Your task to perform on an android device: turn notification dots on Image 0: 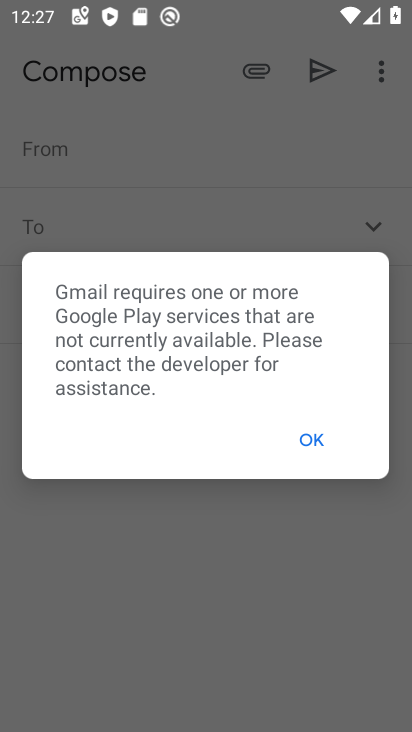
Step 0: drag from (257, 476) to (217, 231)
Your task to perform on an android device: turn notification dots on Image 1: 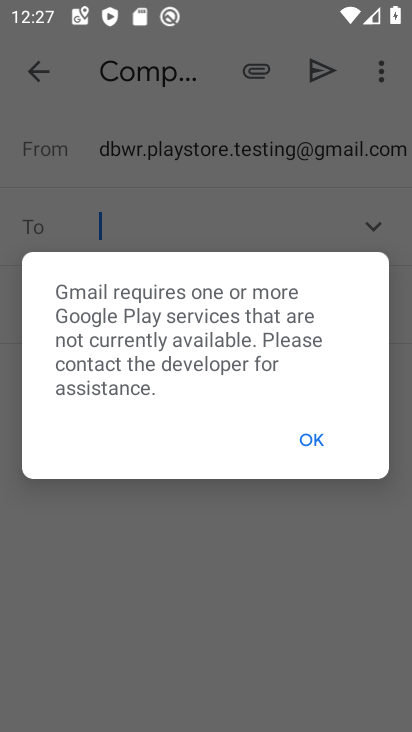
Step 1: press home button
Your task to perform on an android device: turn notification dots on Image 2: 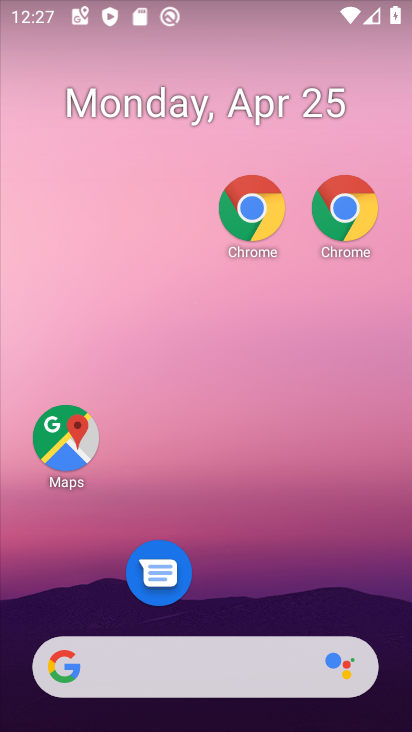
Step 2: drag from (273, 683) to (174, 101)
Your task to perform on an android device: turn notification dots on Image 3: 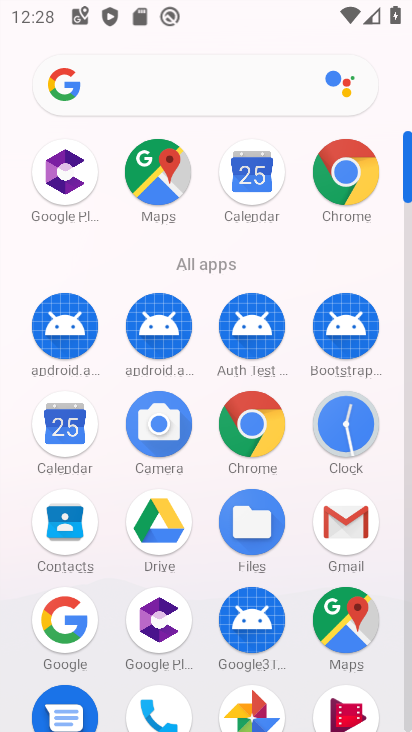
Step 3: drag from (295, 616) to (3, 93)
Your task to perform on an android device: turn notification dots on Image 4: 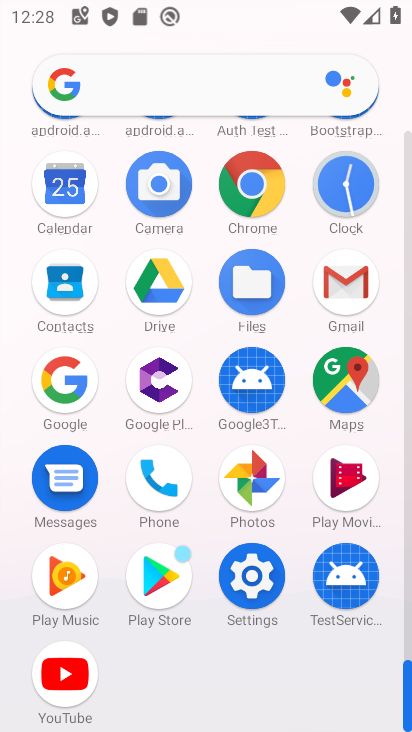
Step 4: click (254, 586)
Your task to perform on an android device: turn notification dots on Image 5: 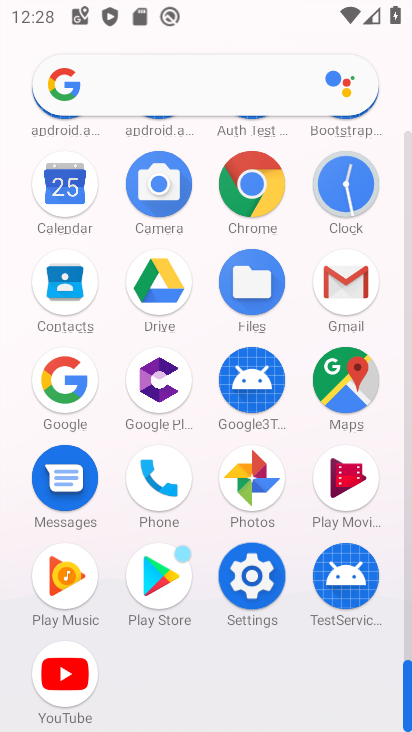
Step 5: drag from (255, 585) to (231, 551)
Your task to perform on an android device: turn notification dots on Image 6: 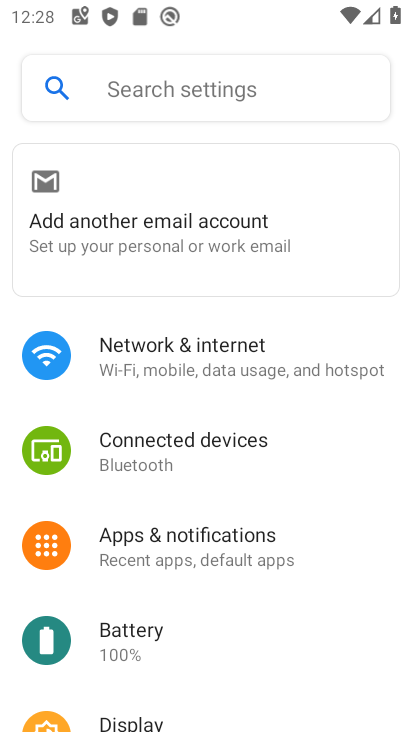
Step 6: click (164, 537)
Your task to perform on an android device: turn notification dots on Image 7: 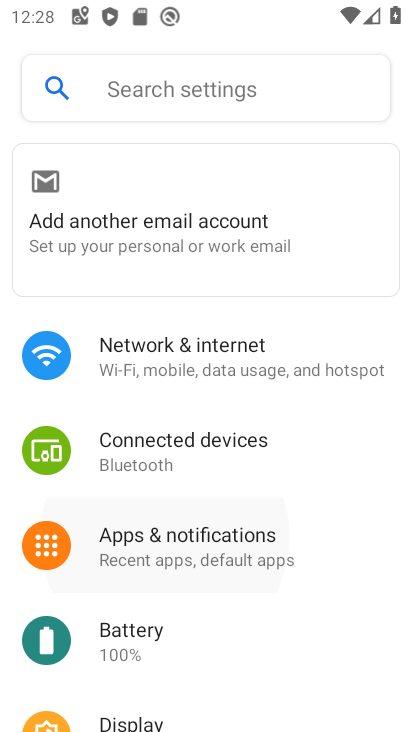
Step 7: click (164, 537)
Your task to perform on an android device: turn notification dots on Image 8: 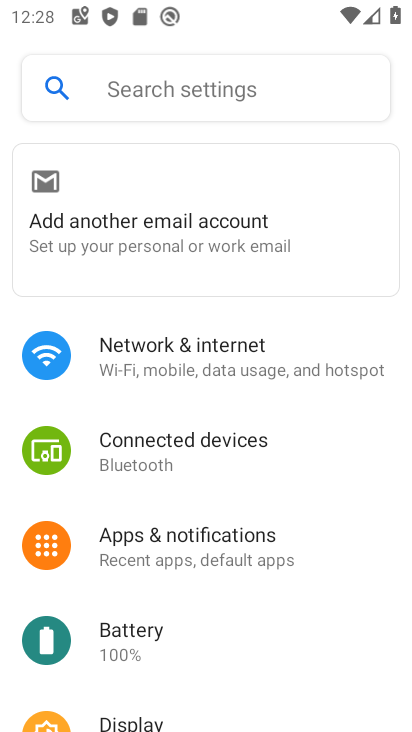
Step 8: click (164, 537)
Your task to perform on an android device: turn notification dots on Image 9: 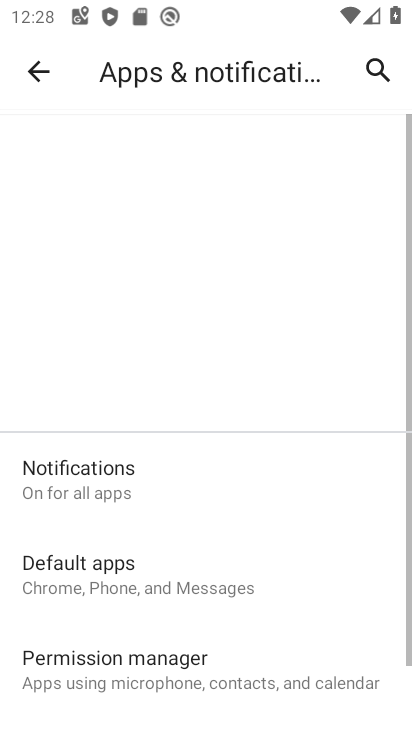
Step 9: drag from (147, 546) to (72, 124)
Your task to perform on an android device: turn notification dots on Image 10: 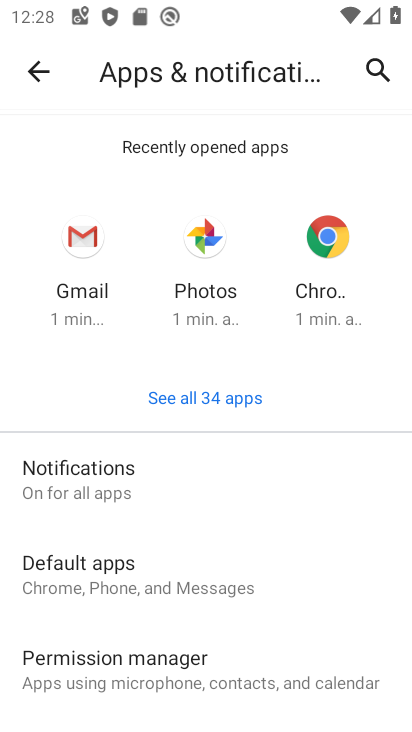
Step 10: drag from (177, 516) to (83, 102)
Your task to perform on an android device: turn notification dots on Image 11: 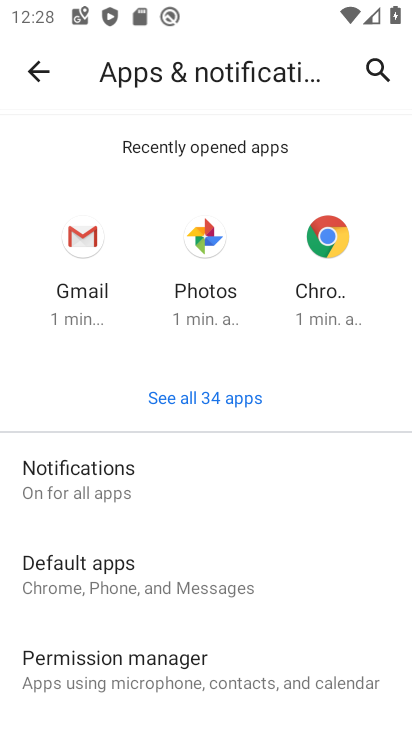
Step 11: drag from (167, 527) to (110, 42)
Your task to perform on an android device: turn notification dots on Image 12: 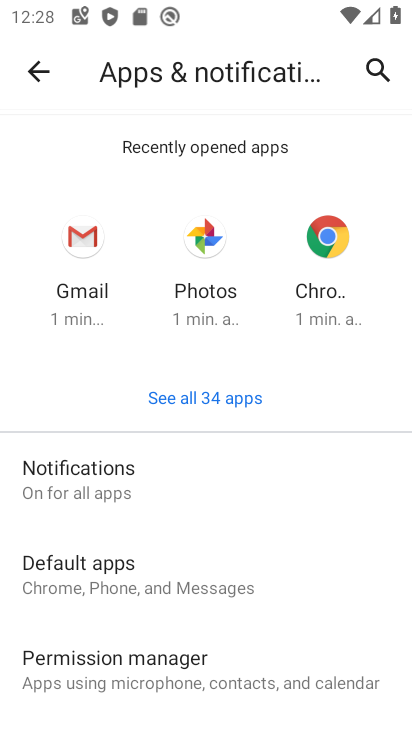
Step 12: drag from (198, 562) to (195, 115)
Your task to perform on an android device: turn notification dots on Image 13: 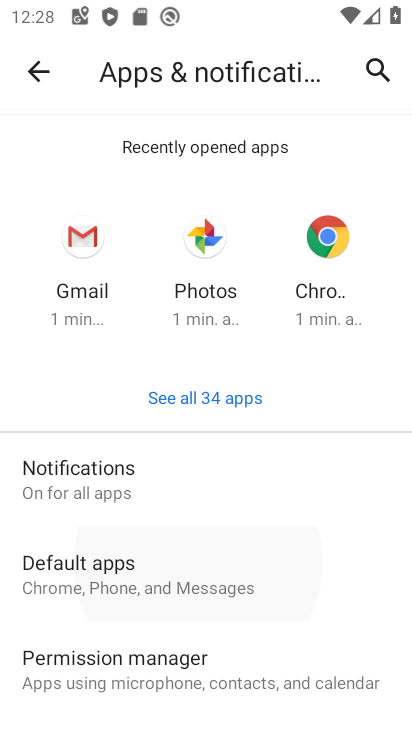
Step 13: drag from (218, 630) to (97, 117)
Your task to perform on an android device: turn notification dots on Image 14: 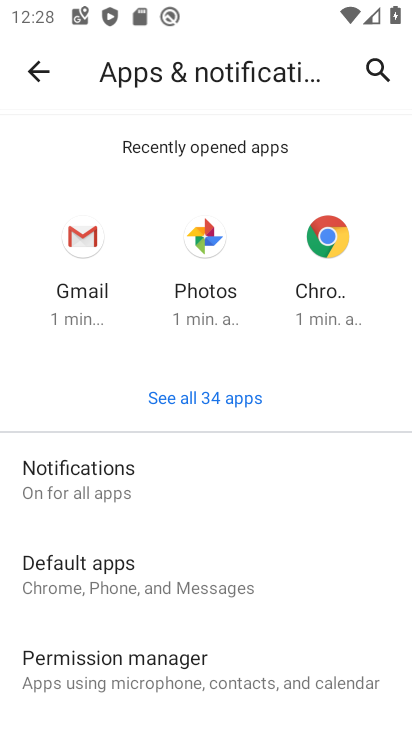
Step 14: drag from (140, 532) to (139, 41)
Your task to perform on an android device: turn notification dots on Image 15: 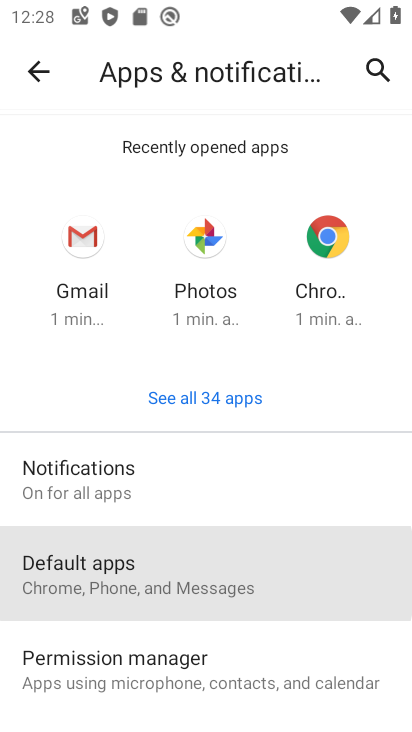
Step 15: drag from (200, 588) to (163, 79)
Your task to perform on an android device: turn notification dots on Image 16: 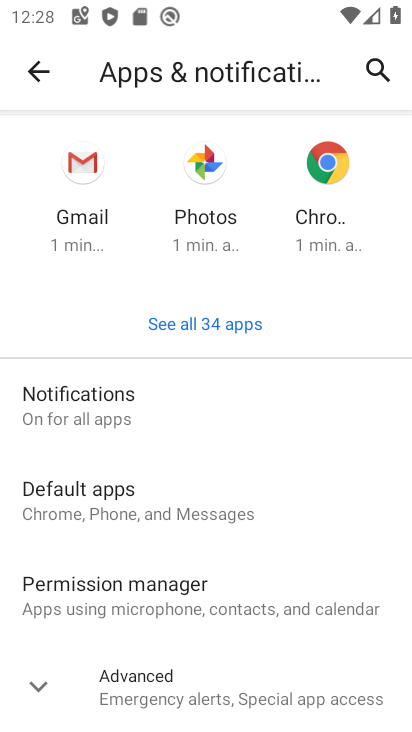
Step 16: click (59, 399)
Your task to perform on an android device: turn notification dots on Image 17: 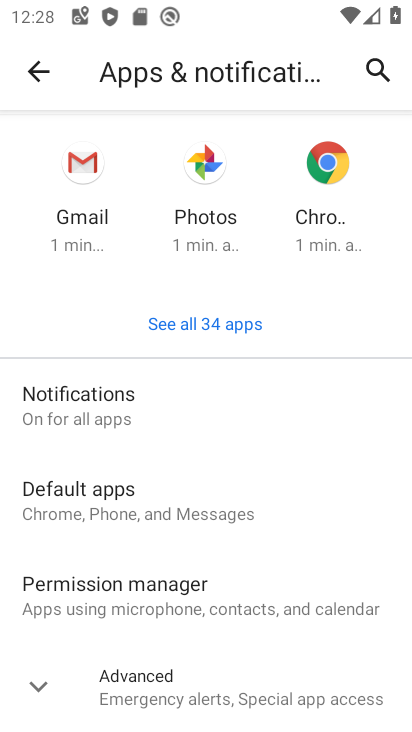
Step 17: click (61, 401)
Your task to perform on an android device: turn notification dots on Image 18: 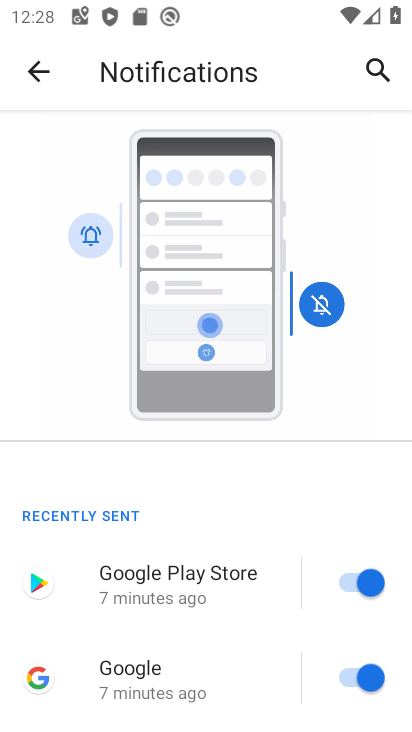
Step 18: drag from (177, 590) to (163, 7)
Your task to perform on an android device: turn notification dots on Image 19: 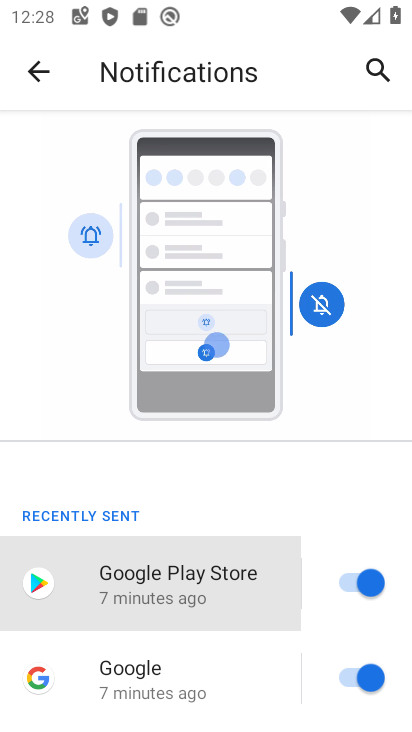
Step 19: drag from (176, 606) to (127, 73)
Your task to perform on an android device: turn notification dots on Image 20: 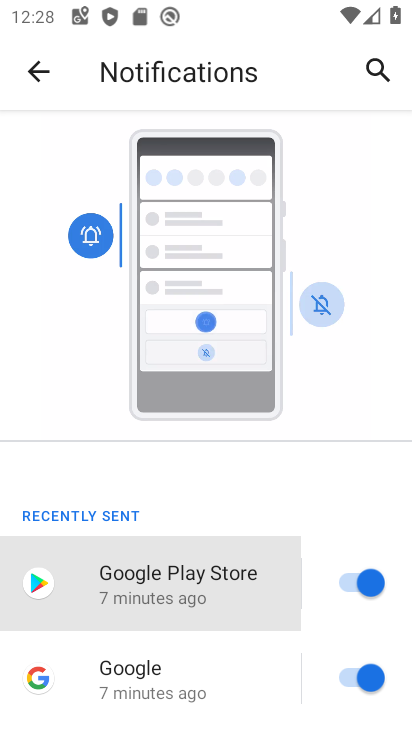
Step 20: drag from (186, 585) to (148, 115)
Your task to perform on an android device: turn notification dots on Image 21: 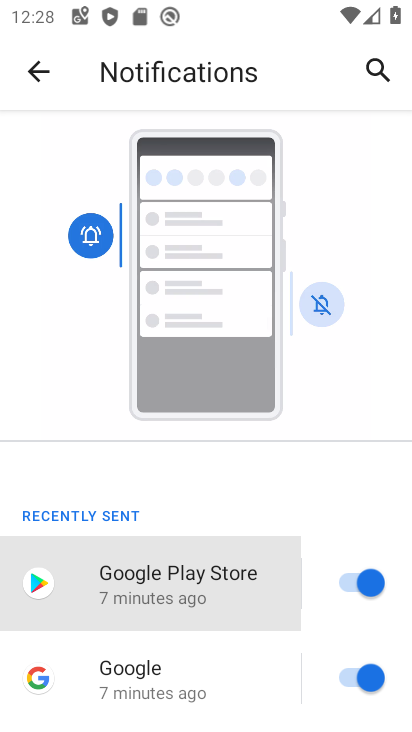
Step 21: drag from (193, 569) to (215, 72)
Your task to perform on an android device: turn notification dots on Image 22: 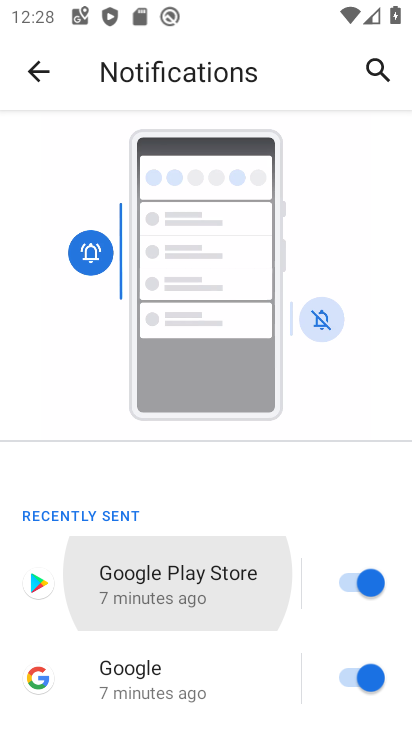
Step 22: drag from (207, 638) to (247, 10)
Your task to perform on an android device: turn notification dots on Image 23: 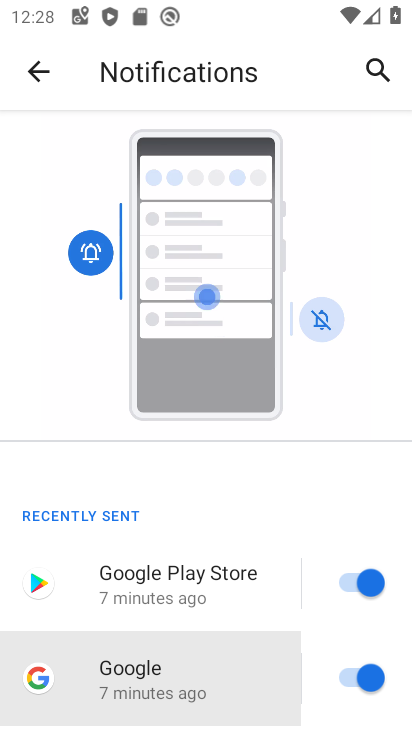
Step 23: drag from (257, 400) to (295, 173)
Your task to perform on an android device: turn notification dots on Image 24: 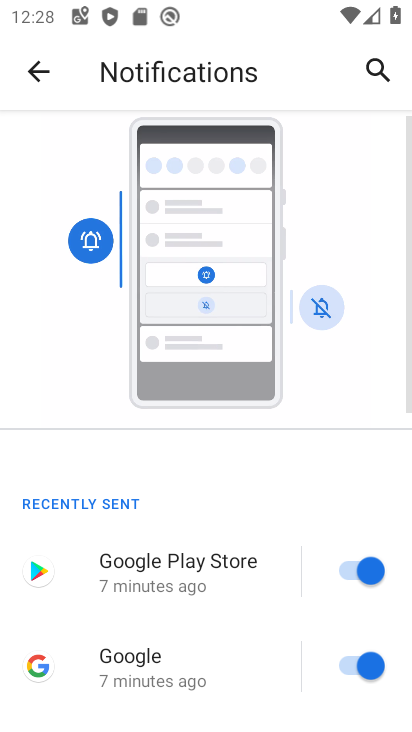
Step 24: drag from (263, 647) to (196, 34)
Your task to perform on an android device: turn notification dots on Image 25: 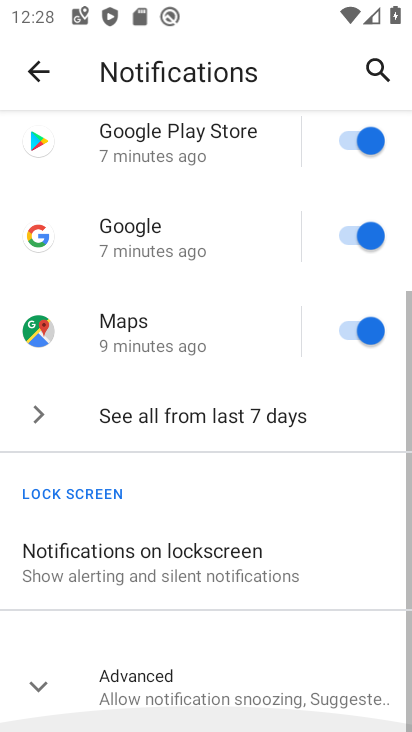
Step 25: drag from (230, 218) to (230, 88)
Your task to perform on an android device: turn notification dots on Image 26: 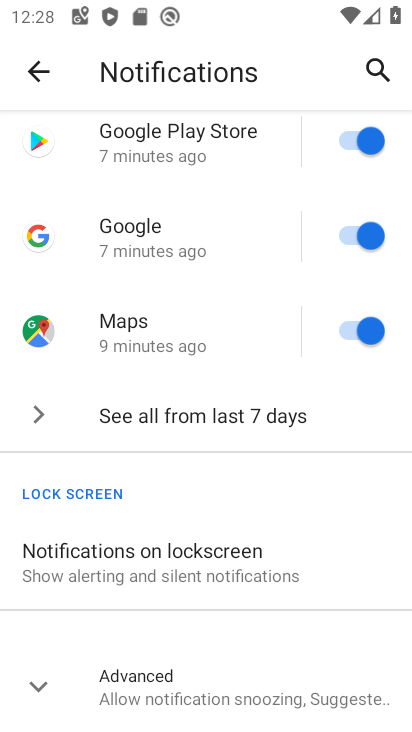
Step 26: drag from (194, 500) to (193, 39)
Your task to perform on an android device: turn notification dots on Image 27: 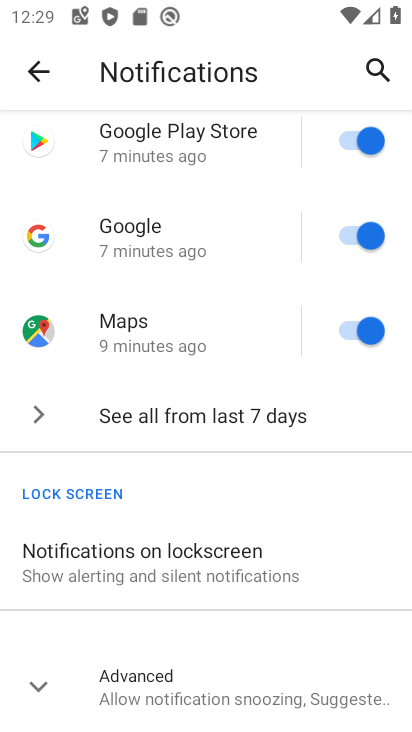
Step 27: click (162, 687)
Your task to perform on an android device: turn notification dots on Image 28: 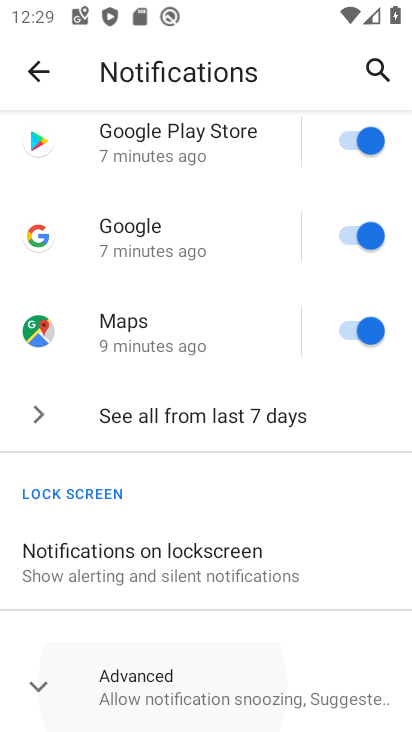
Step 28: click (162, 687)
Your task to perform on an android device: turn notification dots on Image 29: 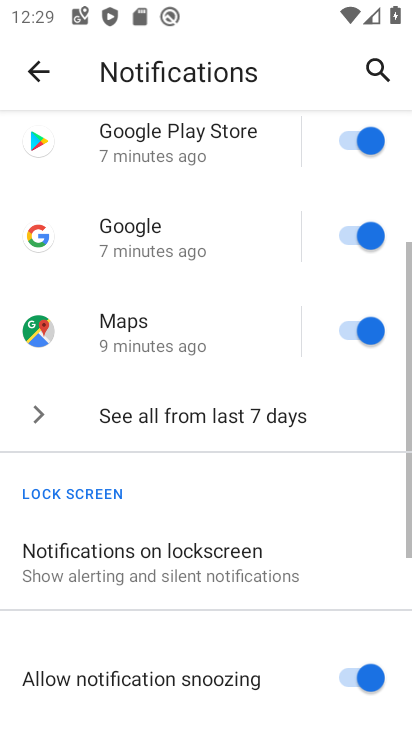
Step 29: drag from (205, 634) to (124, 194)
Your task to perform on an android device: turn notification dots on Image 30: 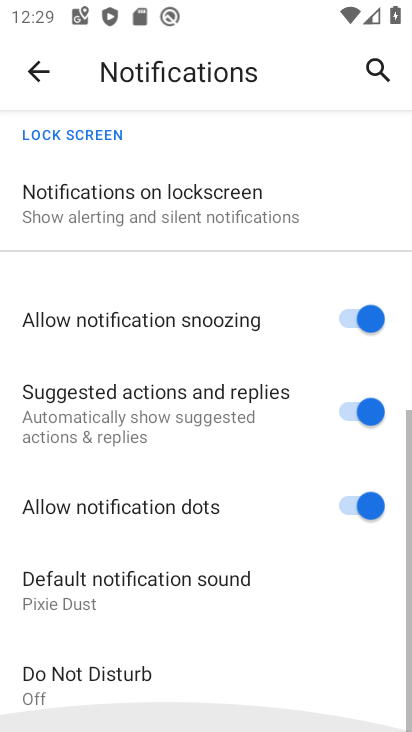
Step 30: drag from (196, 428) to (196, 104)
Your task to perform on an android device: turn notification dots on Image 31: 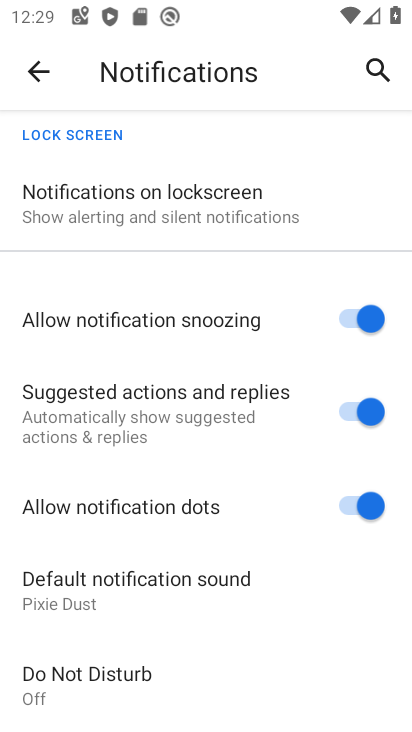
Step 31: drag from (228, 326) to (258, 6)
Your task to perform on an android device: turn notification dots on Image 32: 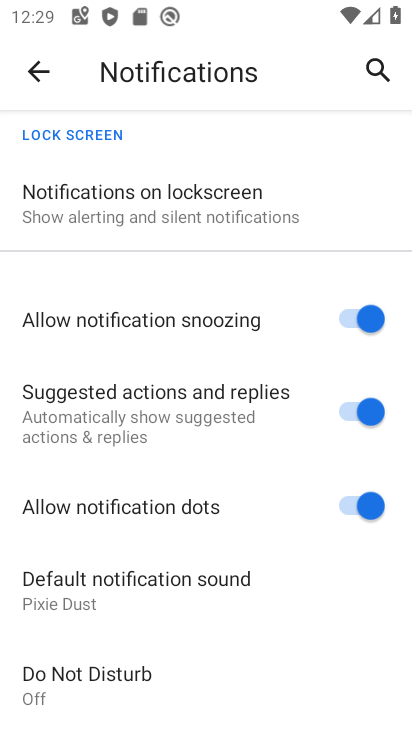
Step 32: click (364, 499)
Your task to perform on an android device: turn notification dots on Image 33: 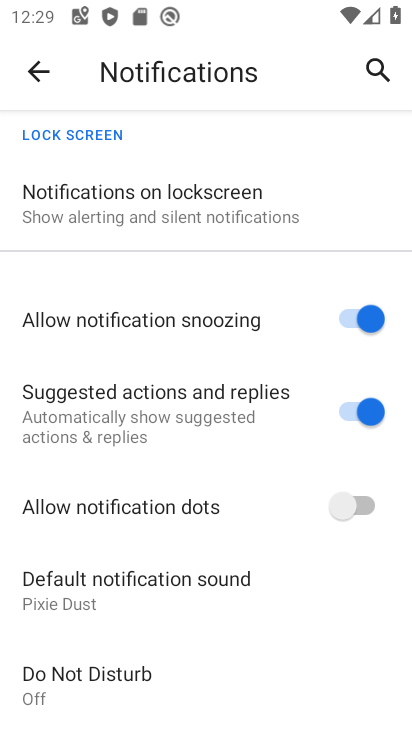
Step 33: click (349, 498)
Your task to perform on an android device: turn notification dots on Image 34: 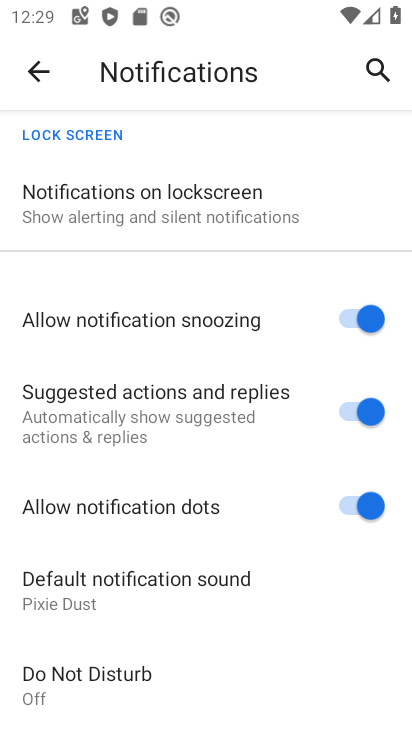
Step 34: task complete